Your task to perform on an android device: Go to display settings Image 0: 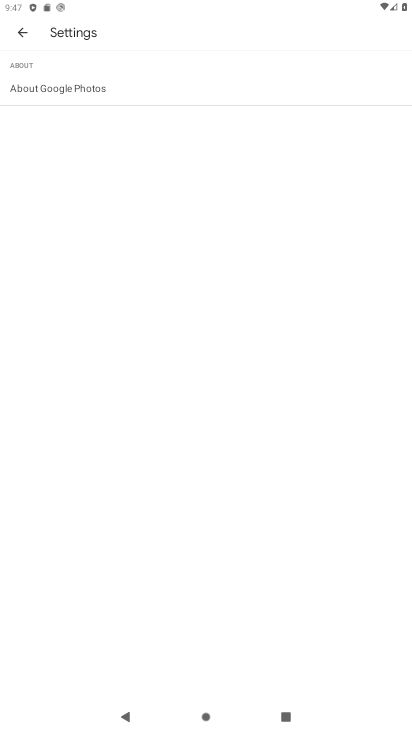
Step 0: press home button
Your task to perform on an android device: Go to display settings Image 1: 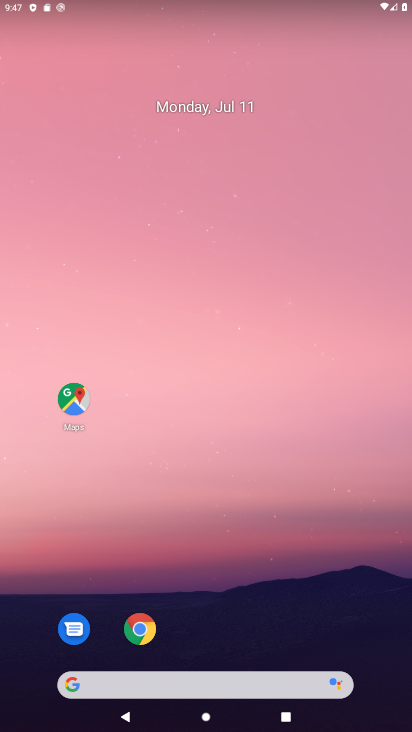
Step 1: drag from (249, 631) to (237, 133)
Your task to perform on an android device: Go to display settings Image 2: 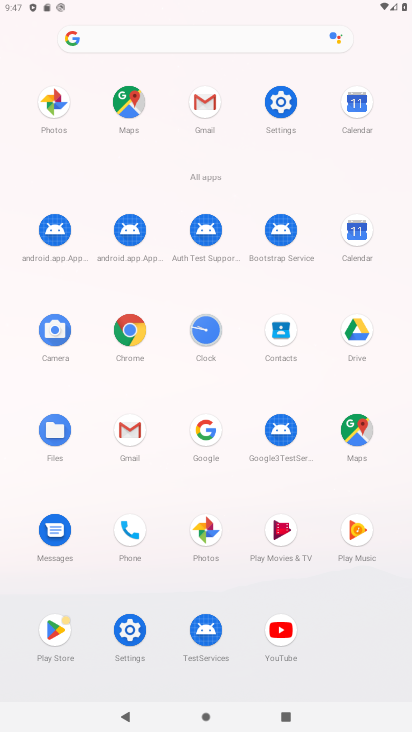
Step 2: click (284, 95)
Your task to perform on an android device: Go to display settings Image 3: 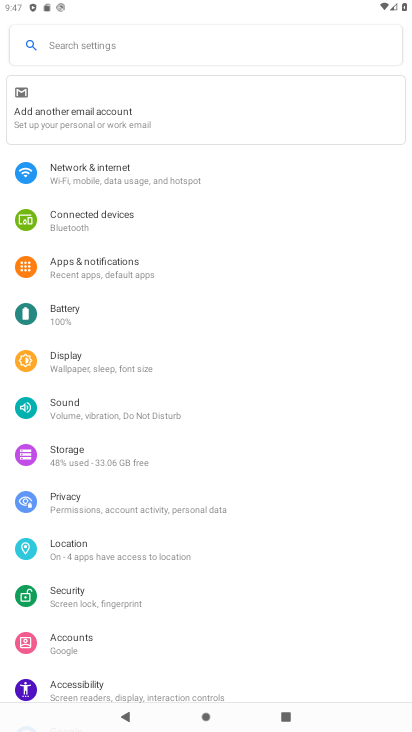
Step 3: click (144, 375)
Your task to perform on an android device: Go to display settings Image 4: 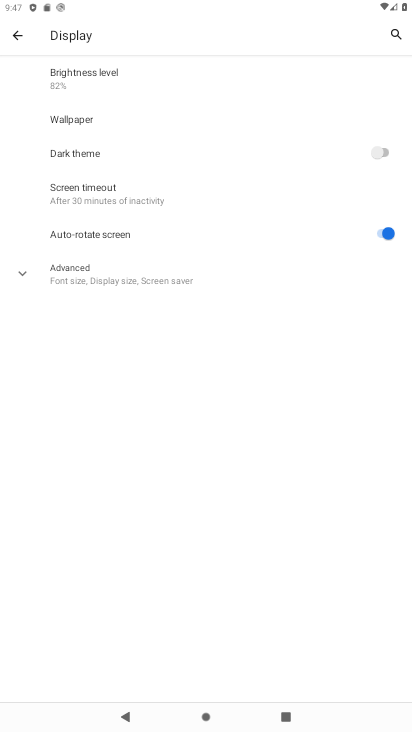
Step 4: task complete